Your task to perform on an android device: turn on javascript in the chrome app Image 0: 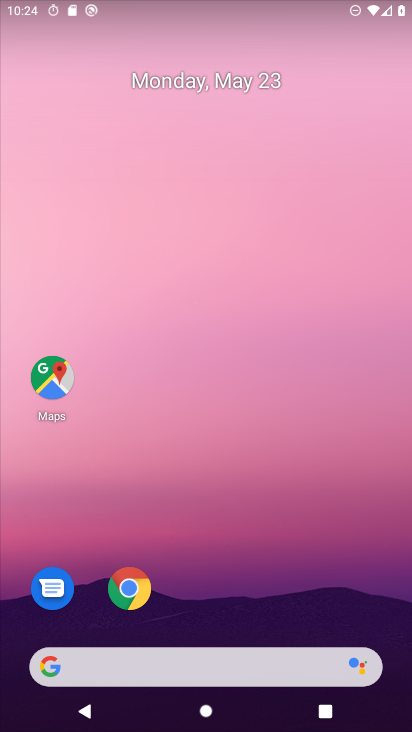
Step 0: click (131, 589)
Your task to perform on an android device: turn on javascript in the chrome app Image 1: 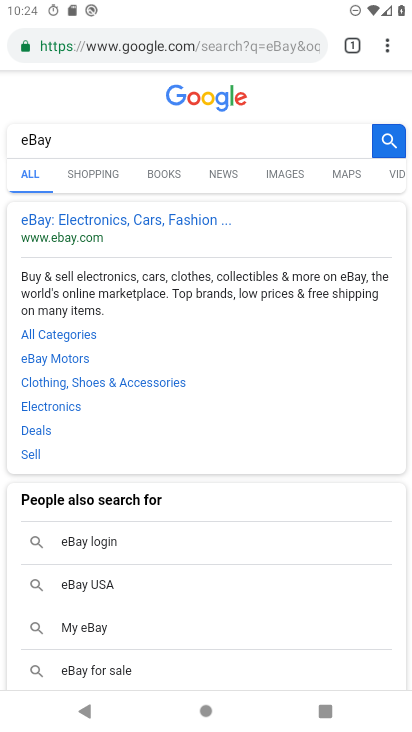
Step 1: click (380, 37)
Your task to perform on an android device: turn on javascript in the chrome app Image 2: 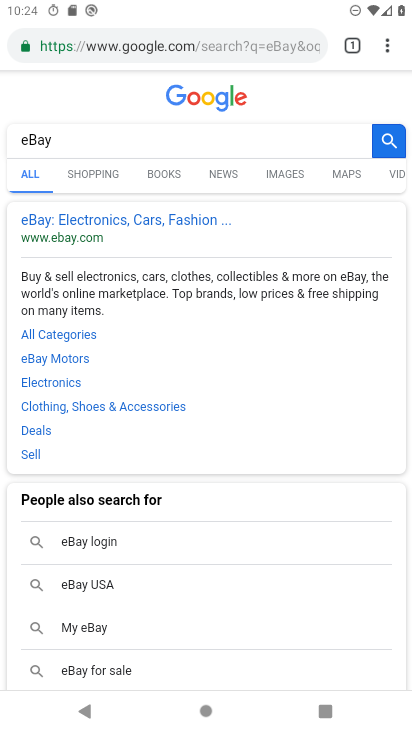
Step 2: click (390, 43)
Your task to perform on an android device: turn on javascript in the chrome app Image 3: 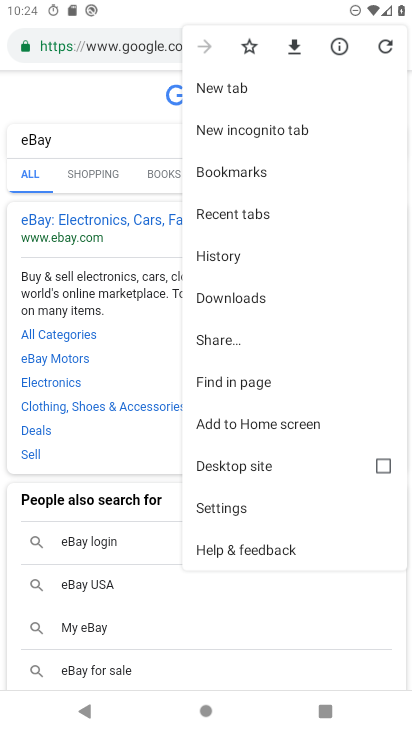
Step 3: click (213, 506)
Your task to perform on an android device: turn on javascript in the chrome app Image 4: 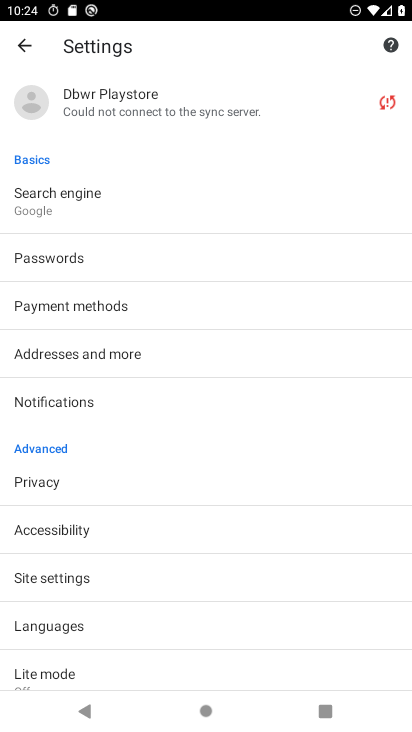
Step 4: click (89, 570)
Your task to perform on an android device: turn on javascript in the chrome app Image 5: 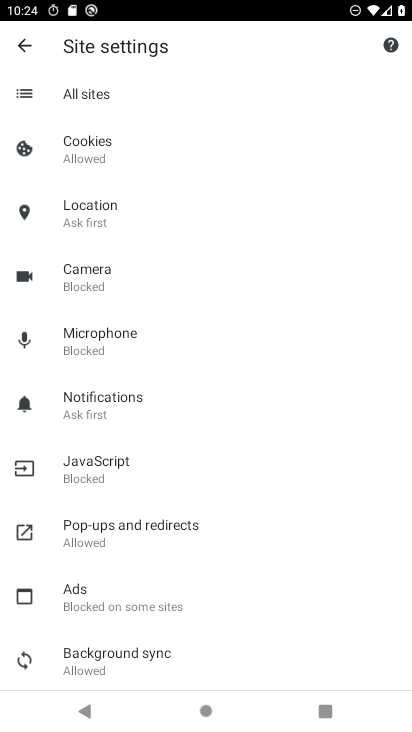
Step 5: click (100, 464)
Your task to perform on an android device: turn on javascript in the chrome app Image 6: 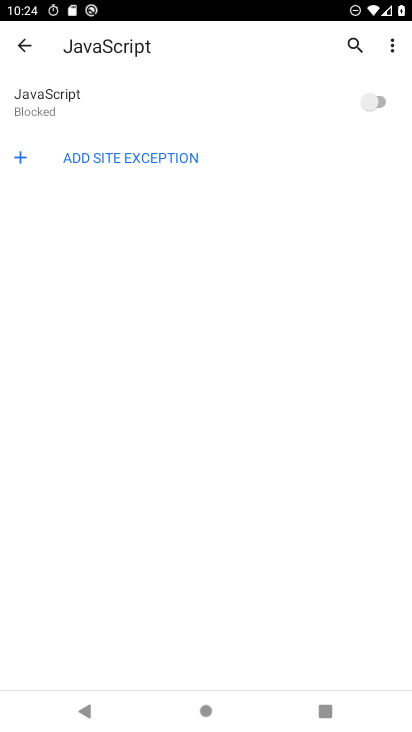
Step 6: click (377, 104)
Your task to perform on an android device: turn on javascript in the chrome app Image 7: 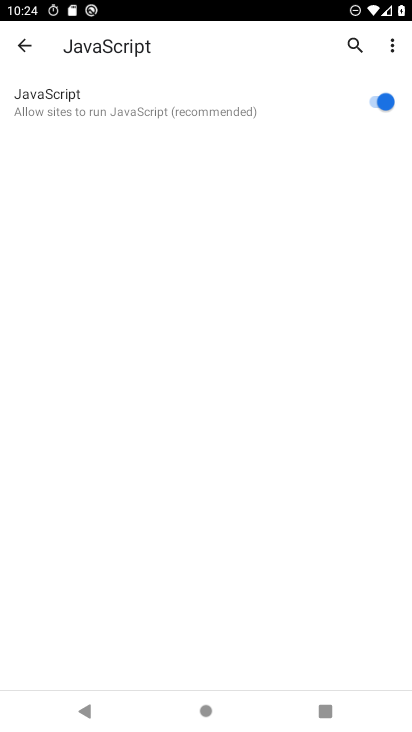
Step 7: task complete